Your task to perform on an android device: Set the phone to "Do not disturb". Image 0: 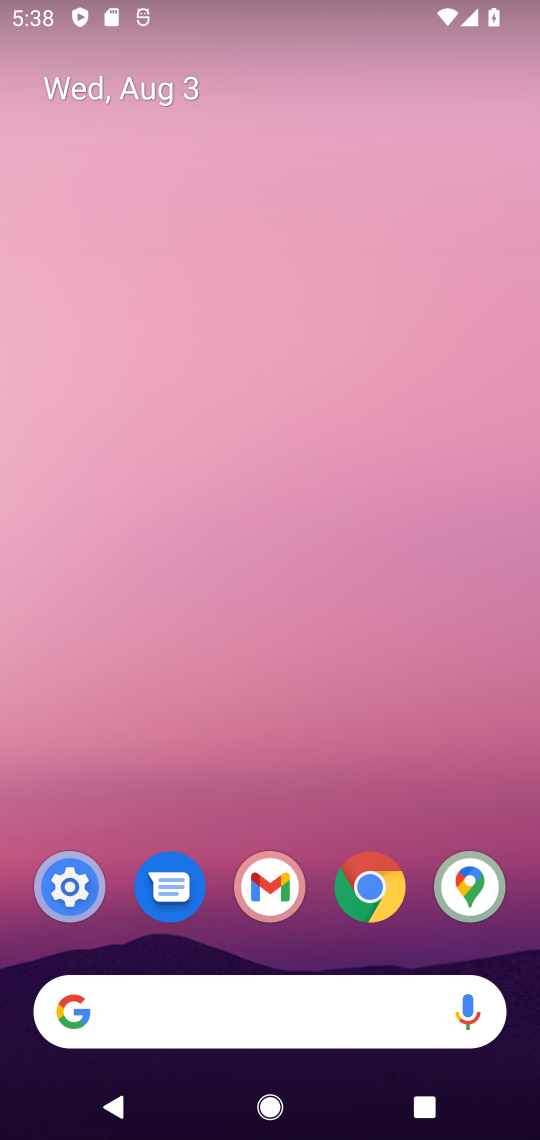
Step 0: drag from (315, 972) to (414, 879)
Your task to perform on an android device: Set the phone to "Do not disturb". Image 1: 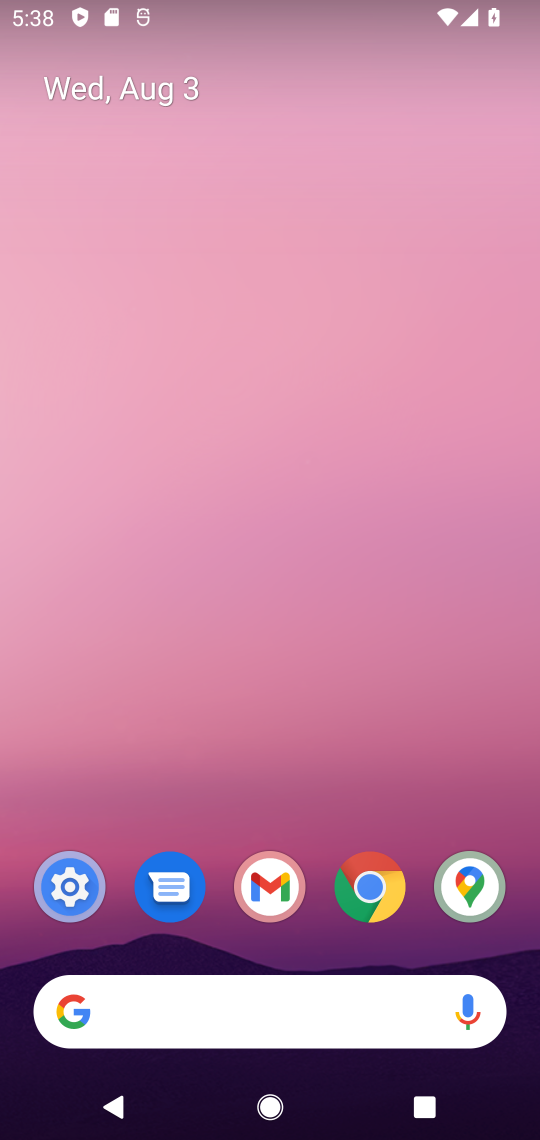
Step 1: drag from (271, 931) to (478, 982)
Your task to perform on an android device: Set the phone to "Do not disturb". Image 2: 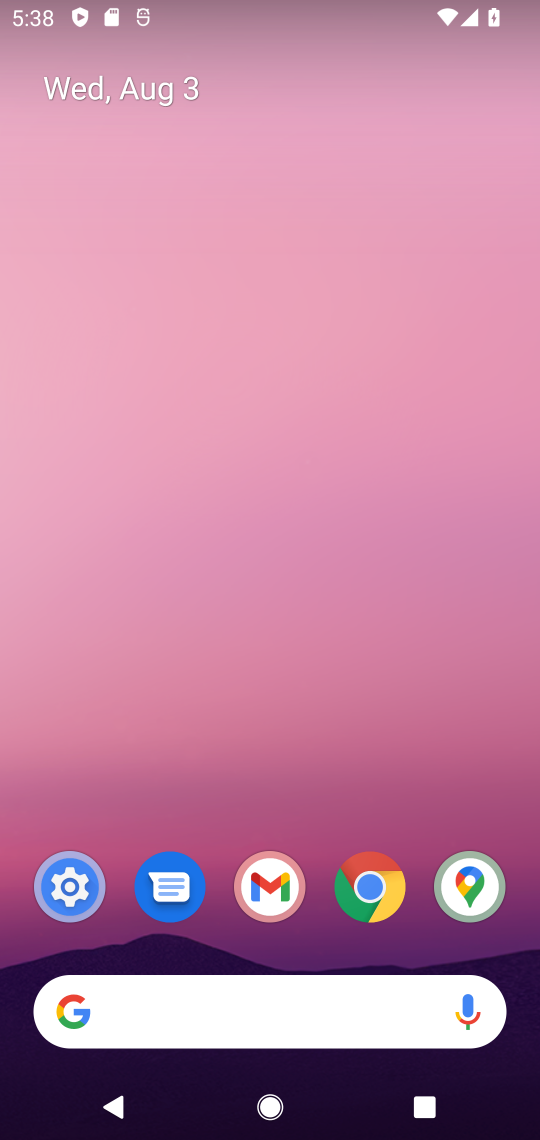
Step 2: drag from (300, 0) to (162, 770)
Your task to perform on an android device: Set the phone to "Do not disturb". Image 3: 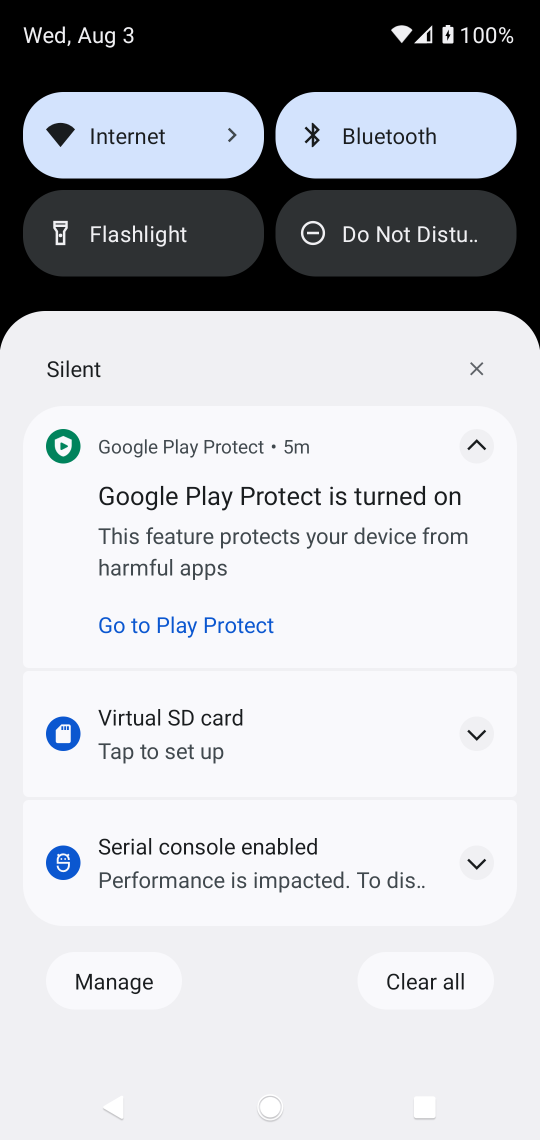
Step 3: drag from (204, 245) to (150, 948)
Your task to perform on an android device: Set the phone to "Do not disturb". Image 4: 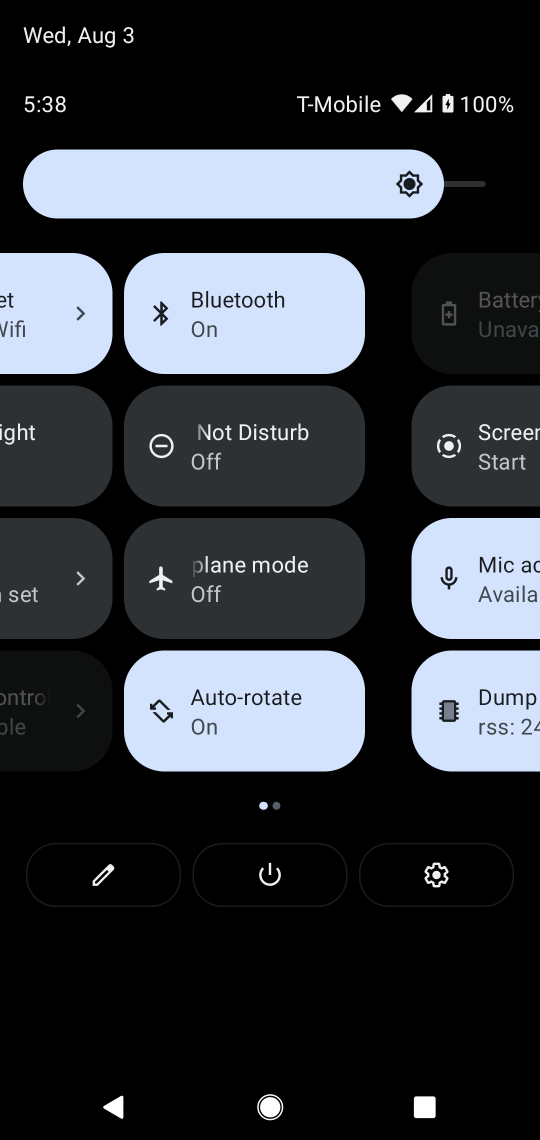
Step 4: click (384, 426)
Your task to perform on an android device: Set the phone to "Do not disturb". Image 5: 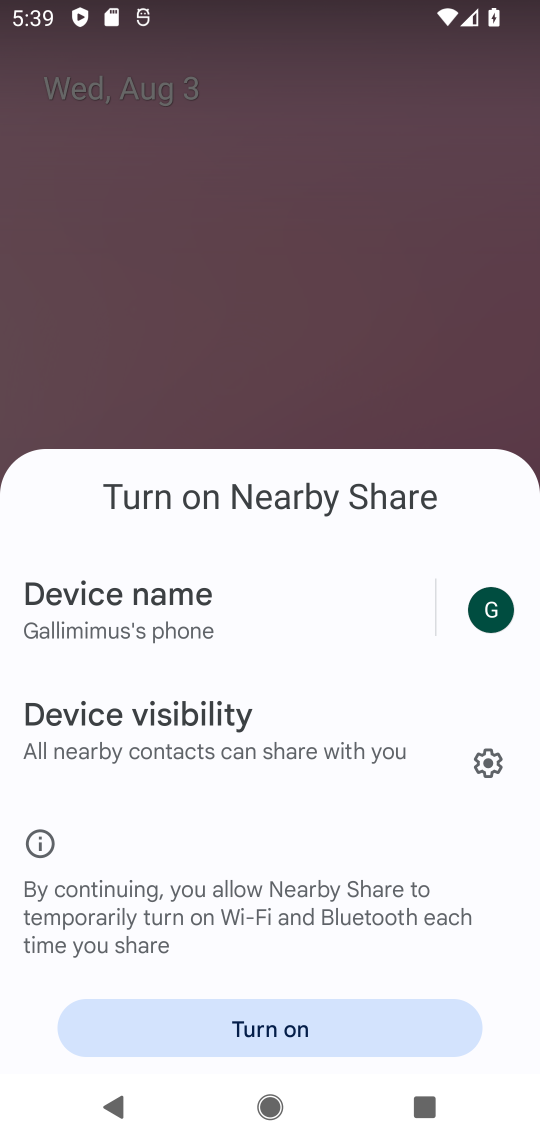
Step 5: click (352, 1036)
Your task to perform on an android device: Set the phone to "Do not disturb". Image 6: 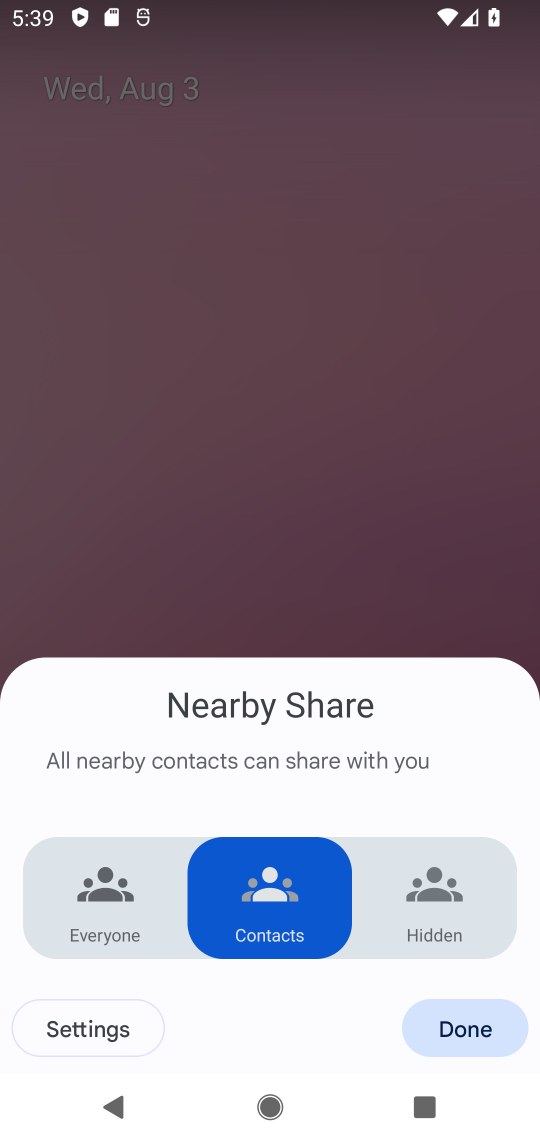
Step 6: task complete